Your task to perform on an android device: install app "PUBG MOBILE" Image 0: 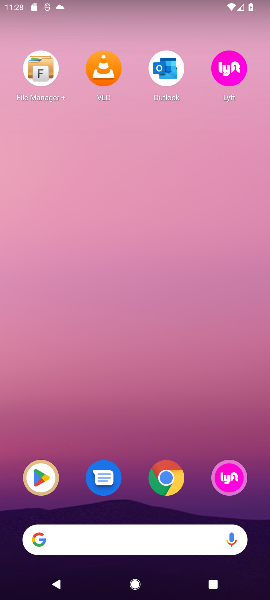
Step 0: click (51, 482)
Your task to perform on an android device: install app "PUBG MOBILE" Image 1: 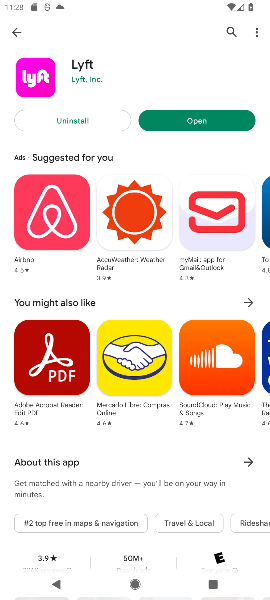
Step 1: click (13, 24)
Your task to perform on an android device: install app "PUBG MOBILE" Image 2: 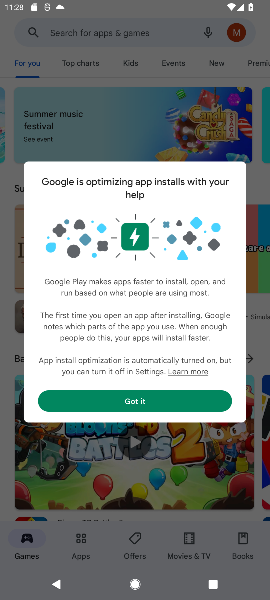
Step 2: click (138, 400)
Your task to perform on an android device: install app "PUBG MOBILE" Image 3: 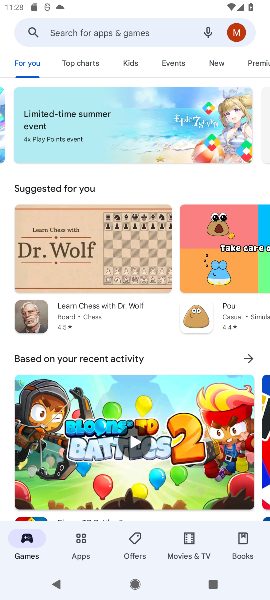
Step 3: click (40, 27)
Your task to perform on an android device: install app "PUBG MOBILE" Image 4: 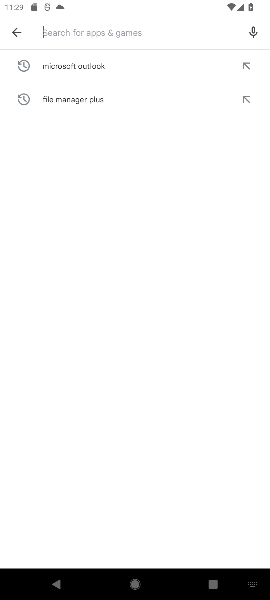
Step 4: type "PUBG MOBILE"
Your task to perform on an android device: install app "PUBG MOBILE" Image 5: 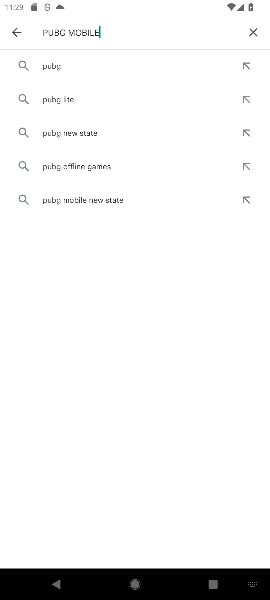
Step 5: type ""
Your task to perform on an android device: install app "PUBG MOBILE" Image 6: 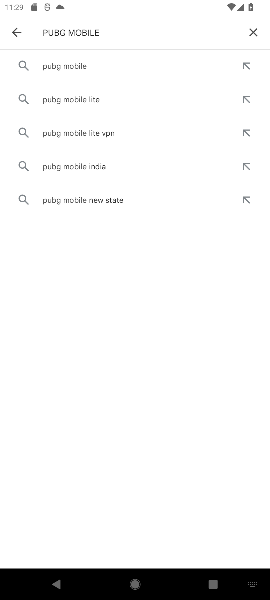
Step 6: click (75, 64)
Your task to perform on an android device: install app "PUBG MOBILE" Image 7: 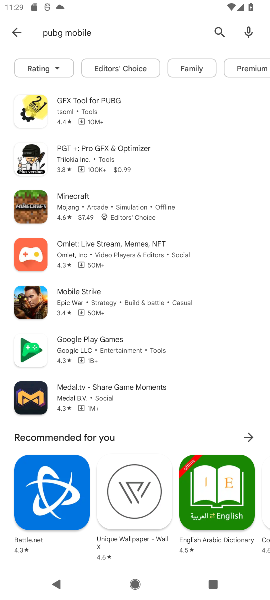
Step 7: task complete